Your task to perform on an android device: Go to calendar. Show me events next week Image 0: 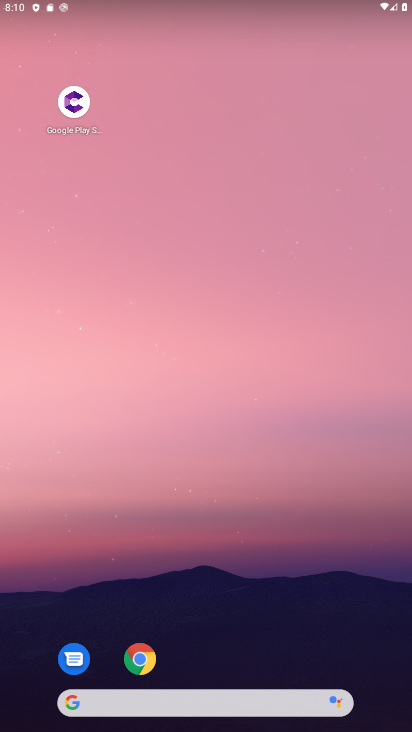
Step 0: drag from (218, 717) to (230, 133)
Your task to perform on an android device: Go to calendar. Show me events next week Image 1: 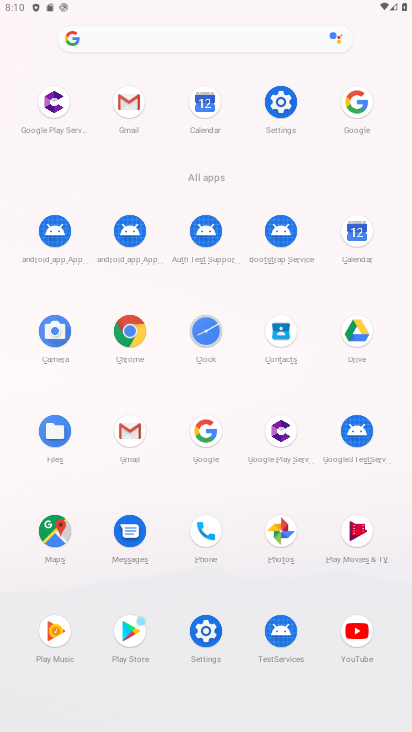
Step 1: click (357, 231)
Your task to perform on an android device: Go to calendar. Show me events next week Image 2: 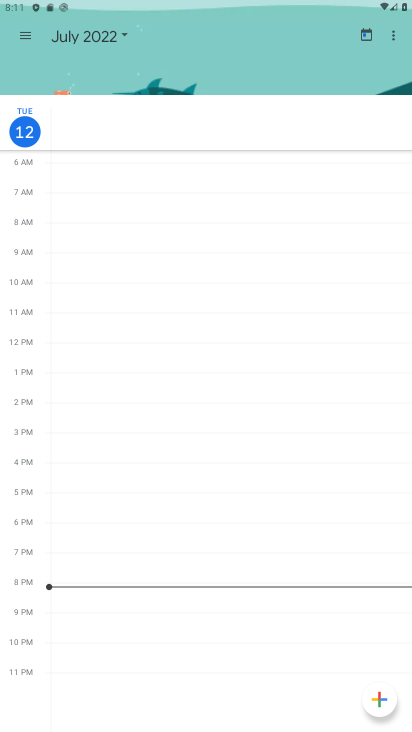
Step 2: click (127, 27)
Your task to perform on an android device: Go to calendar. Show me events next week Image 3: 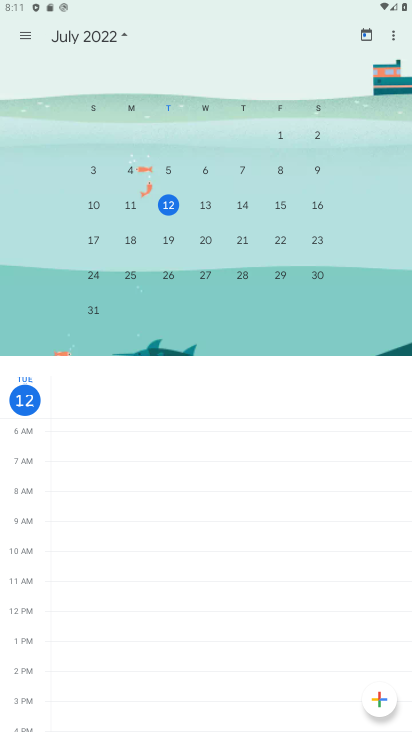
Step 3: click (127, 235)
Your task to perform on an android device: Go to calendar. Show me events next week Image 4: 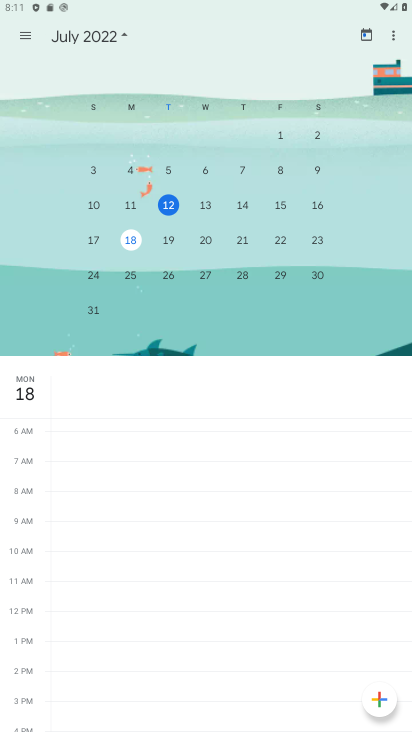
Step 4: click (127, 235)
Your task to perform on an android device: Go to calendar. Show me events next week Image 5: 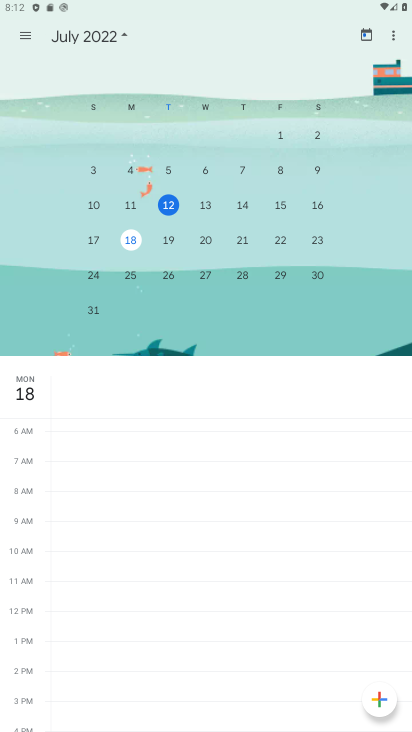
Step 5: click (128, 234)
Your task to perform on an android device: Go to calendar. Show me events next week Image 6: 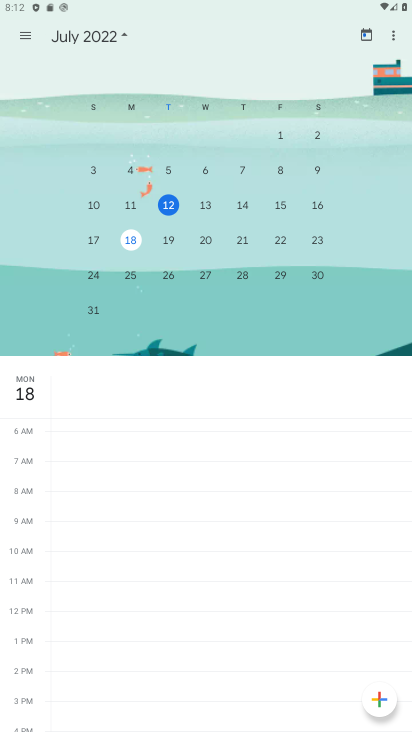
Step 6: click (22, 32)
Your task to perform on an android device: Go to calendar. Show me events next week Image 7: 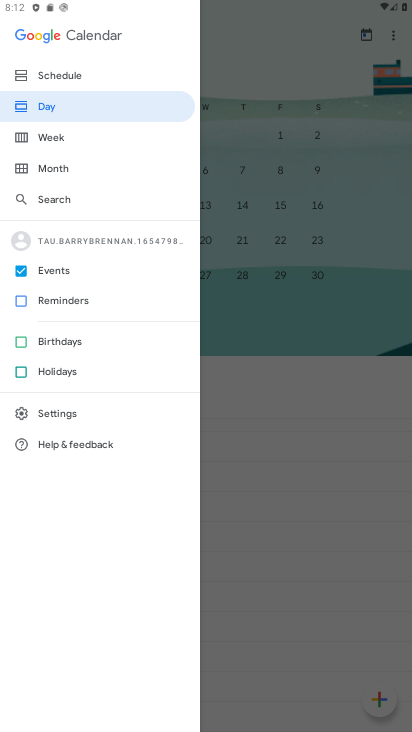
Step 7: click (51, 132)
Your task to perform on an android device: Go to calendar. Show me events next week Image 8: 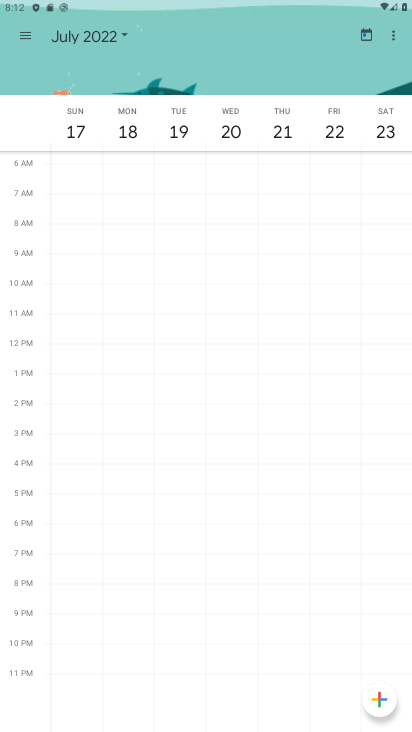
Step 8: task complete